Your task to perform on an android device: Search for pizza restaurants on Maps Image 0: 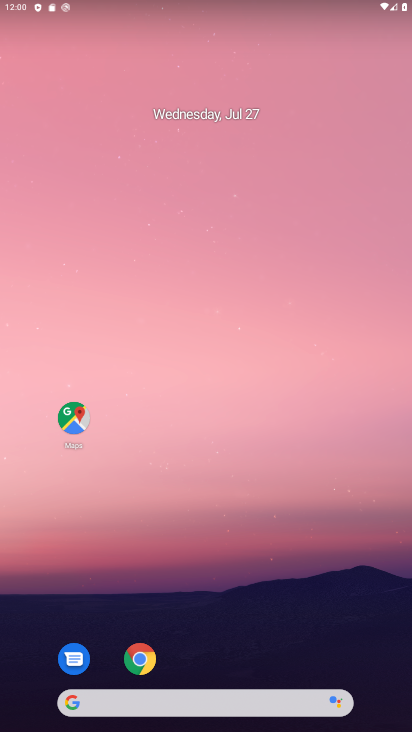
Step 0: click (81, 419)
Your task to perform on an android device: Search for pizza restaurants on Maps Image 1: 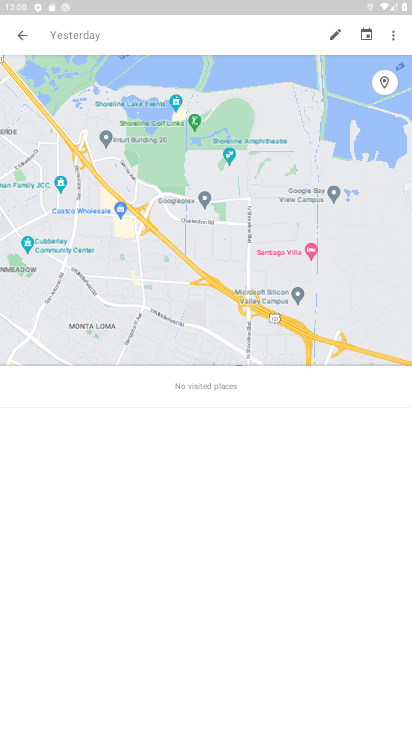
Step 1: click (76, 43)
Your task to perform on an android device: Search for pizza restaurants on Maps Image 2: 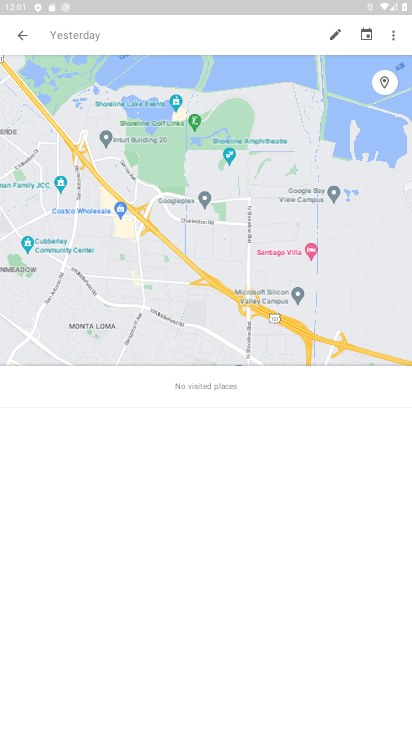
Step 2: click (74, 32)
Your task to perform on an android device: Search for pizza restaurants on Maps Image 3: 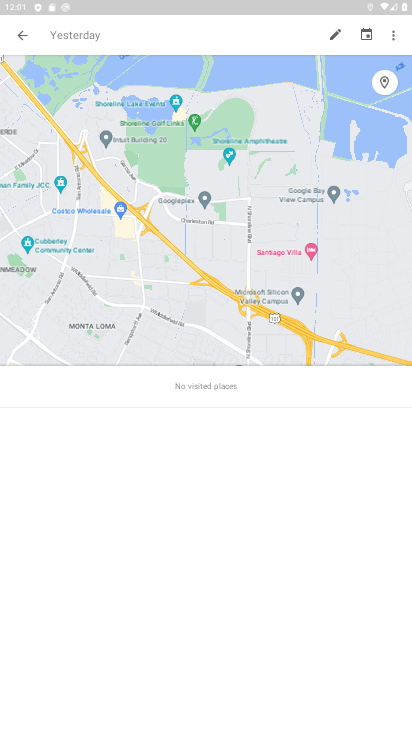
Step 3: click (19, 35)
Your task to perform on an android device: Search for pizza restaurants on Maps Image 4: 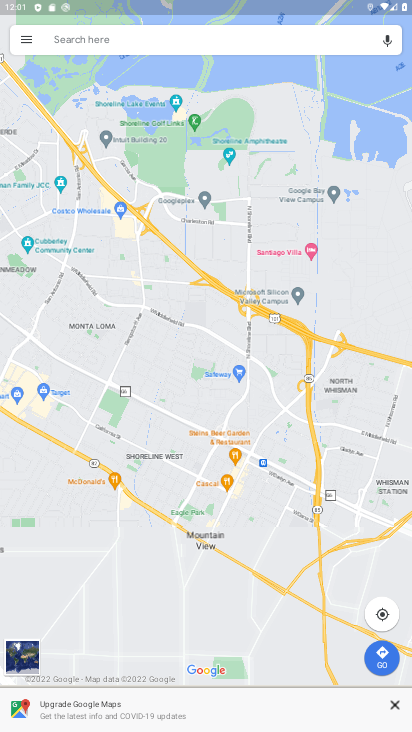
Step 4: click (78, 39)
Your task to perform on an android device: Search for pizza restaurants on Maps Image 5: 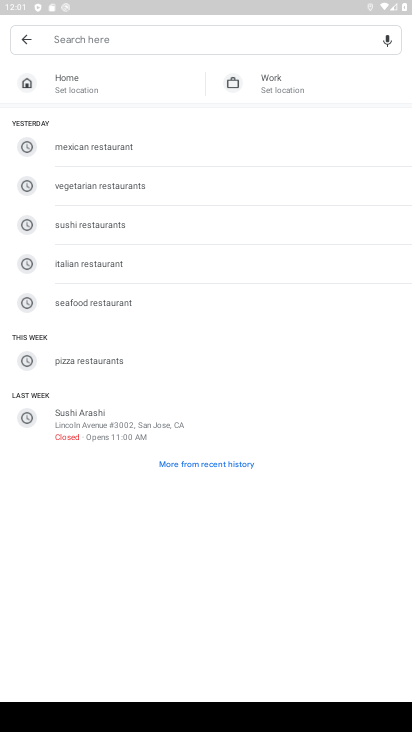
Step 5: type "pizza restaurants "
Your task to perform on an android device: Search for pizza restaurants on Maps Image 6: 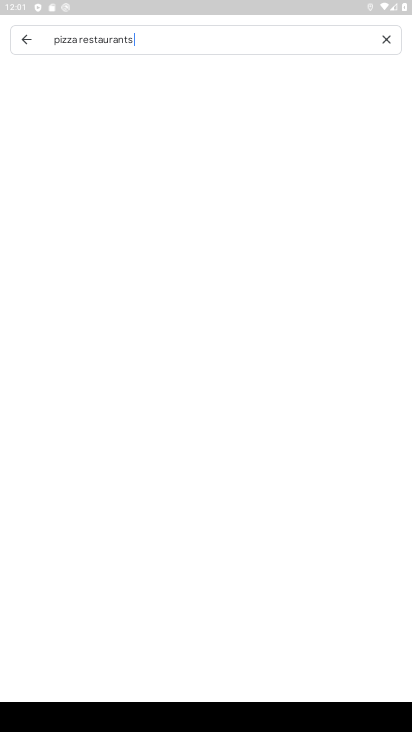
Step 6: type ""
Your task to perform on an android device: Search for pizza restaurants on Maps Image 7: 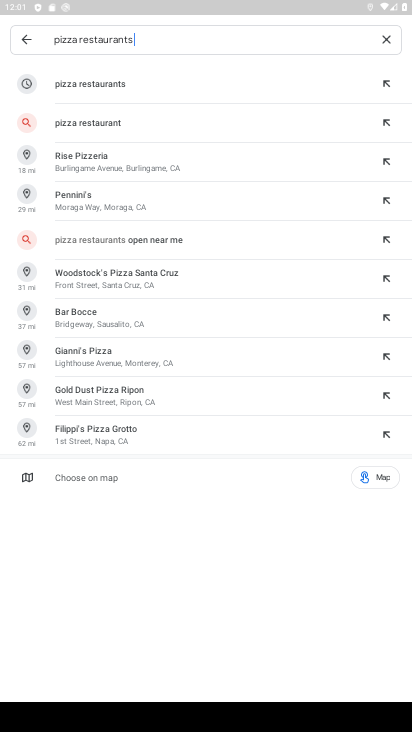
Step 7: press enter
Your task to perform on an android device: Search for pizza restaurants on Maps Image 8: 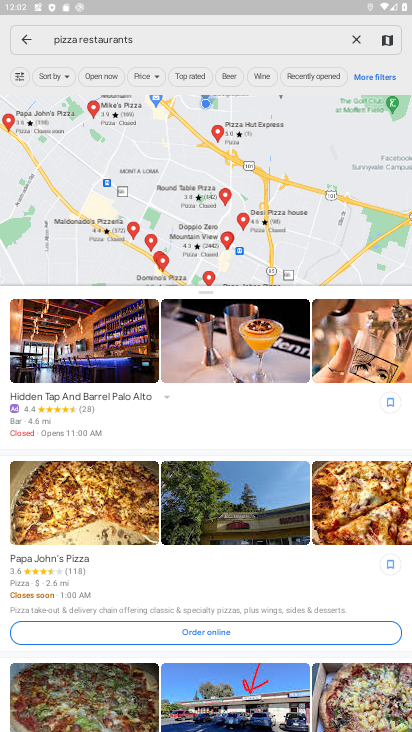
Step 8: task complete